Your task to perform on an android device: Open settings on Google Maps Image 0: 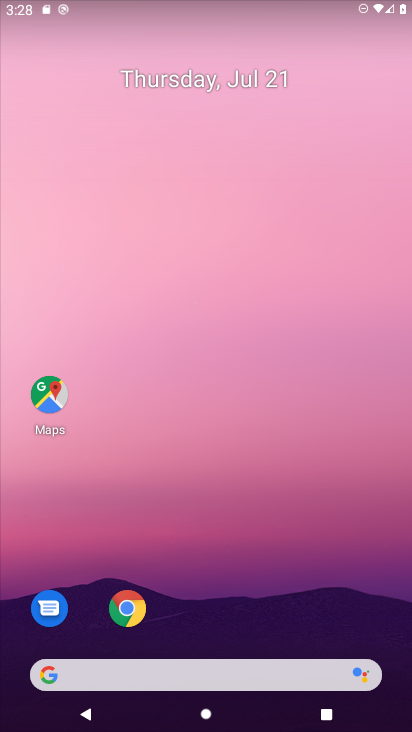
Step 0: click (67, 397)
Your task to perform on an android device: Open settings on Google Maps Image 1: 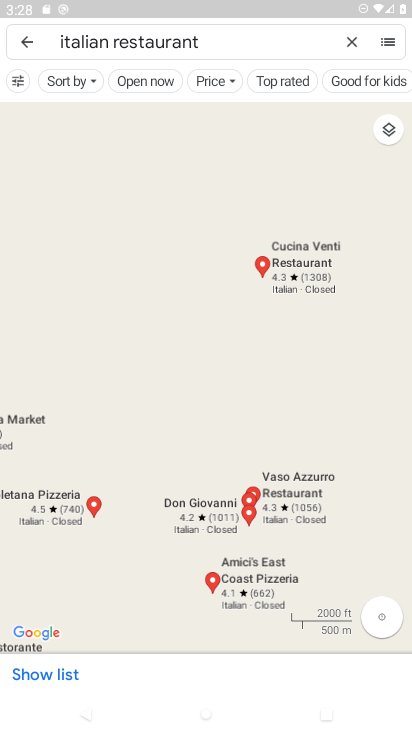
Step 1: click (19, 44)
Your task to perform on an android device: Open settings on Google Maps Image 2: 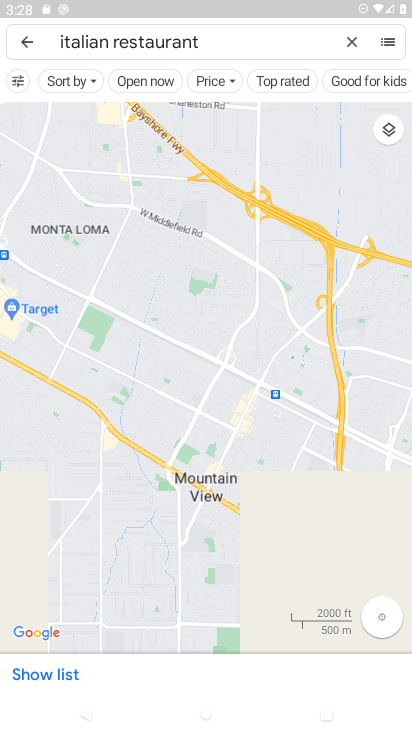
Step 2: click (35, 40)
Your task to perform on an android device: Open settings on Google Maps Image 3: 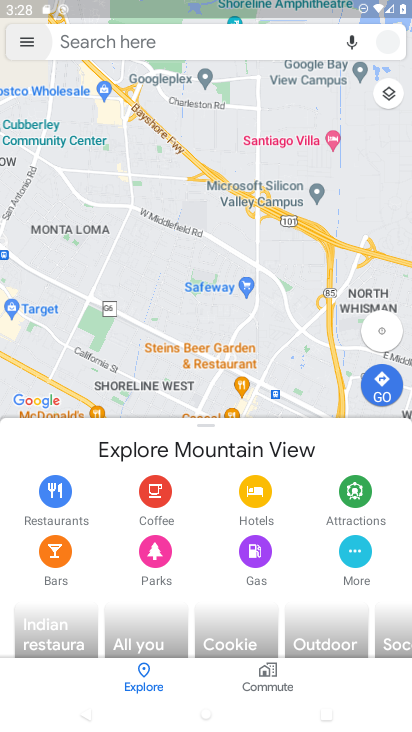
Step 3: click (35, 40)
Your task to perform on an android device: Open settings on Google Maps Image 4: 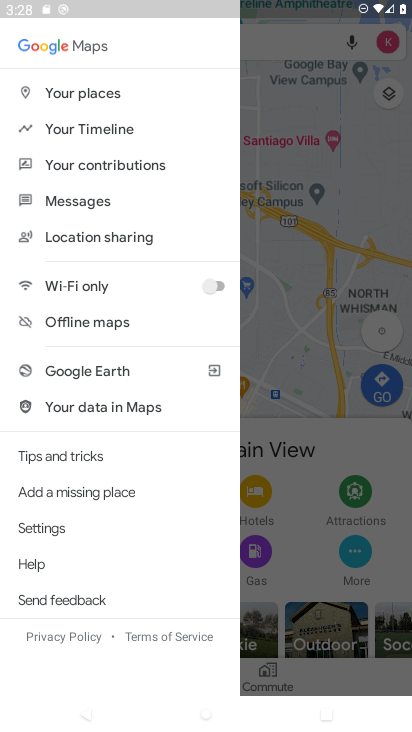
Step 4: click (57, 538)
Your task to perform on an android device: Open settings on Google Maps Image 5: 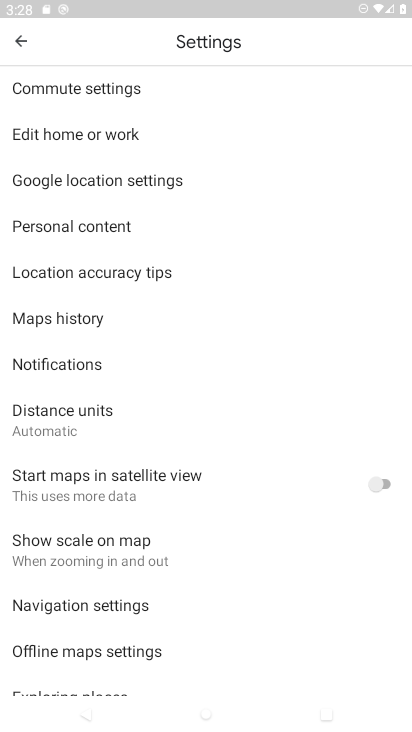
Step 5: task complete